Your task to perform on an android device: see tabs open on other devices in the chrome app Image 0: 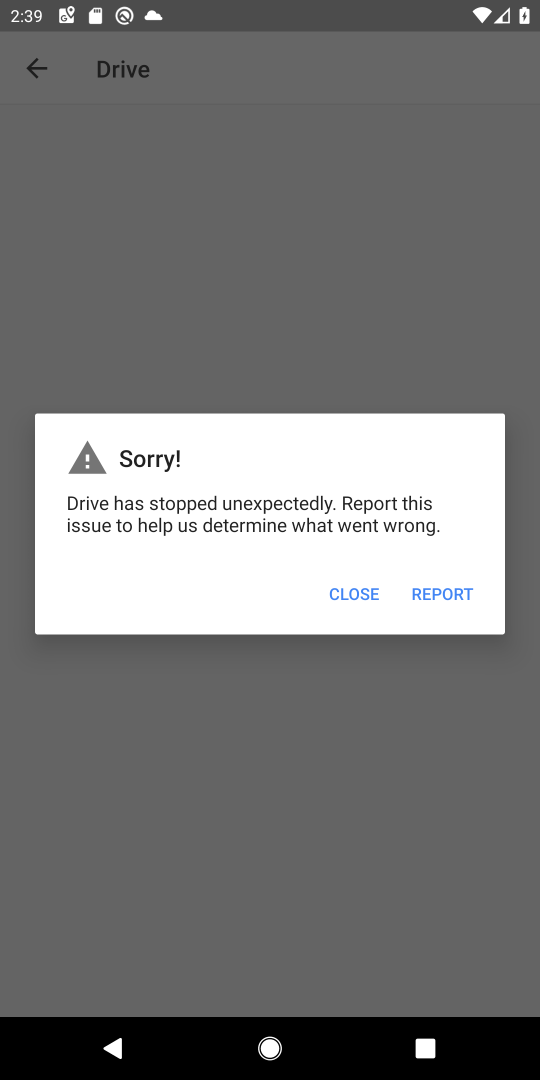
Step 0: press home button
Your task to perform on an android device: see tabs open on other devices in the chrome app Image 1: 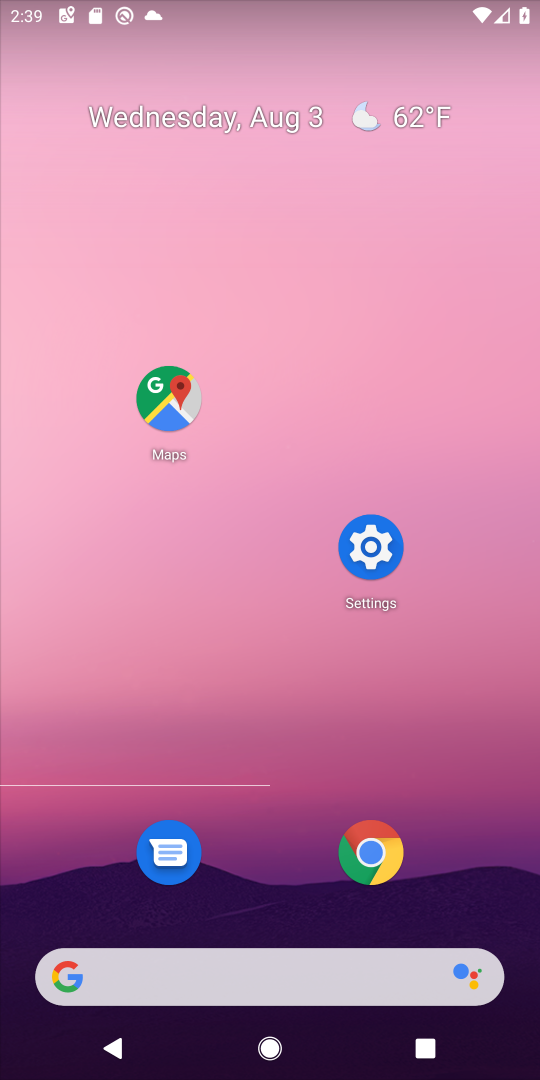
Step 1: click (380, 858)
Your task to perform on an android device: see tabs open on other devices in the chrome app Image 2: 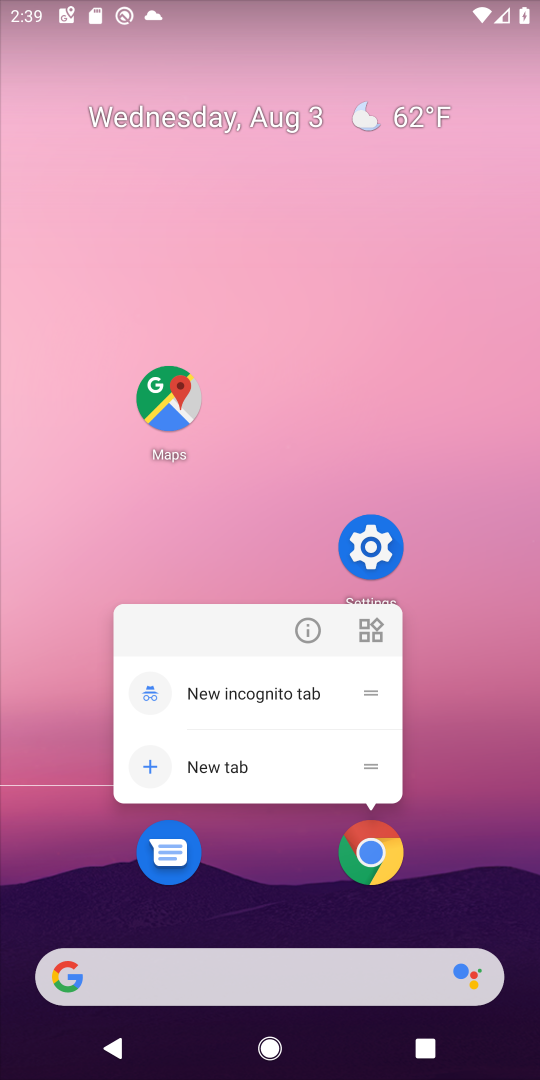
Step 2: click (380, 857)
Your task to perform on an android device: see tabs open on other devices in the chrome app Image 3: 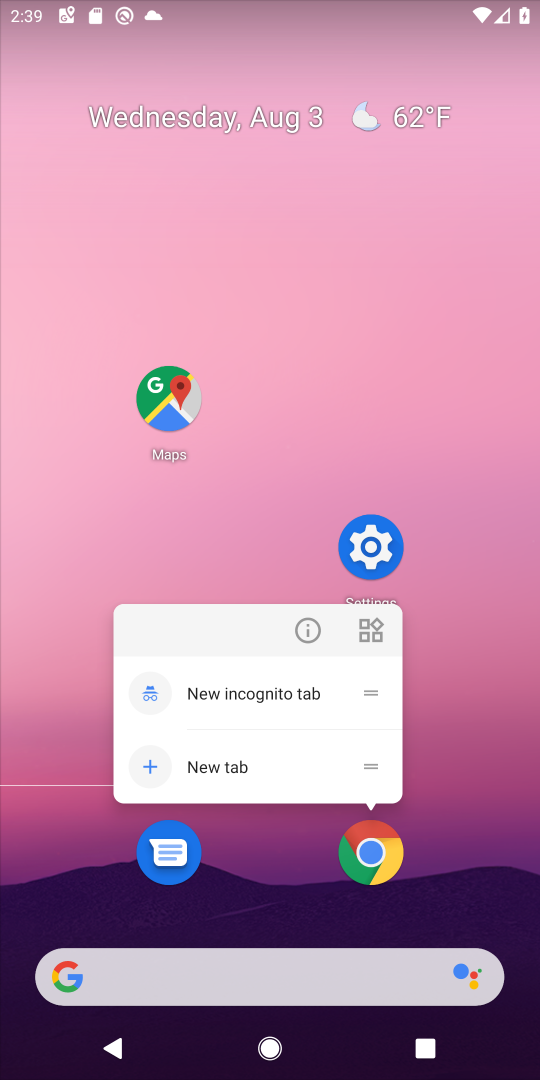
Step 3: click (380, 855)
Your task to perform on an android device: see tabs open on other devices in the chrome app Image 4: 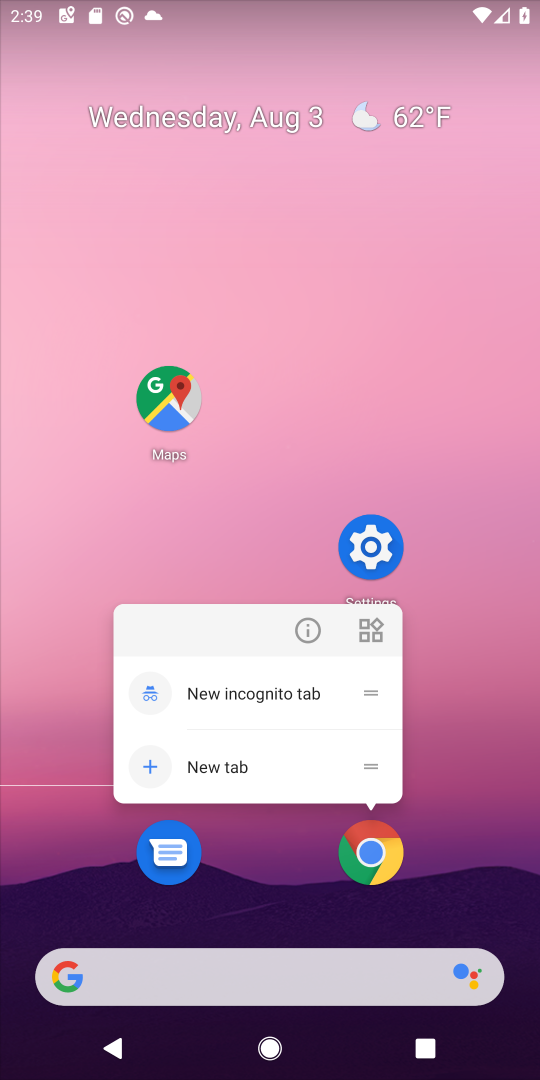
Step 4: click (372, 860)
Your task to perform on an android device: see tabs open on other devices in the chrome app Image 5: 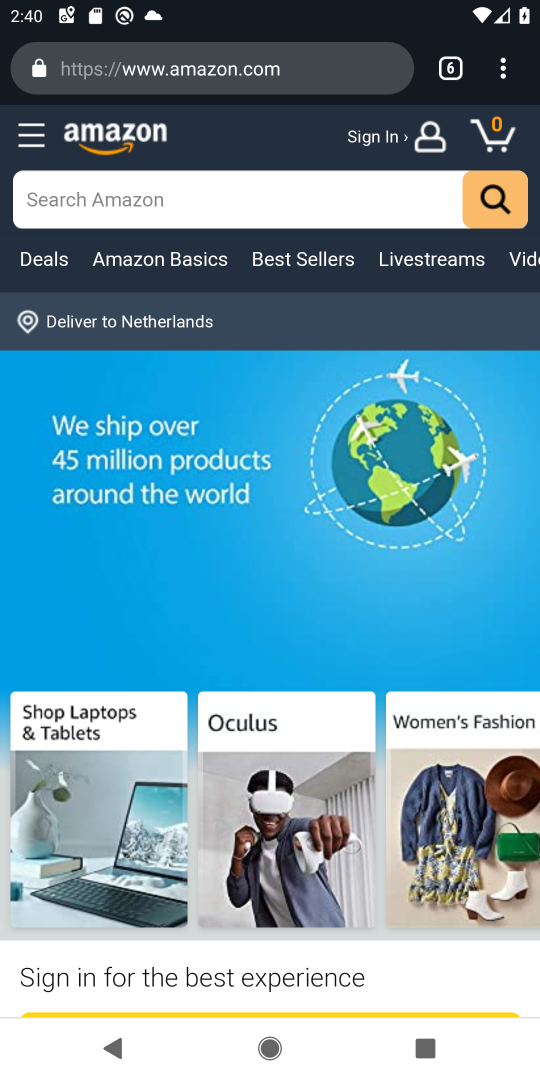
Step 5: task complete